Your task to perform on an android device: check the backup settings in the google photos Image 0: 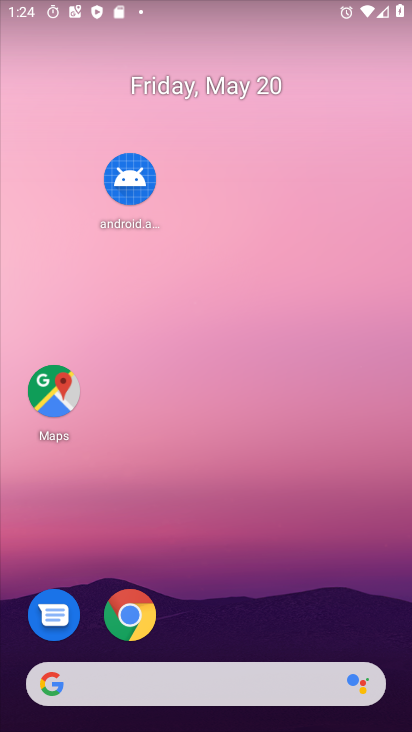
Step 0: drag from (327, 583) to (298, 113)
Your task to perform on an android device: check the backup settings in the google photos Image 1: 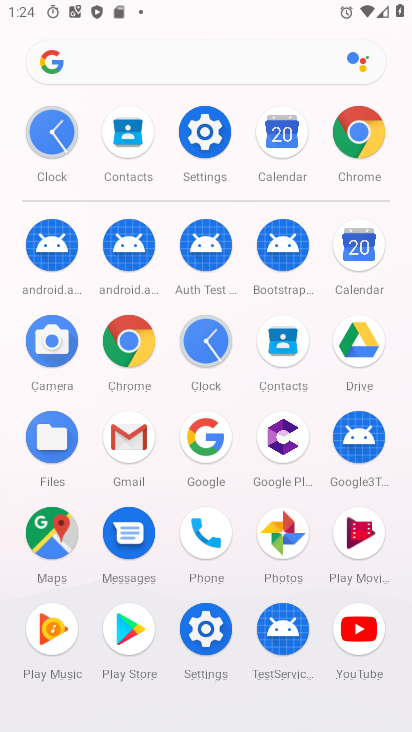
Step 1: click (276, 545)
Your task to perform on an android device: check the backup settings in the google photos Image 2: 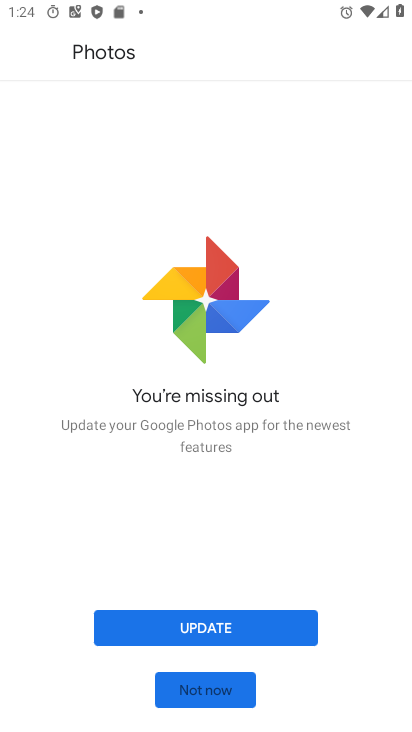
Step 2: click (208, 702)
Your task to perform on an android device: check the backup settings in the google photos Image 3: 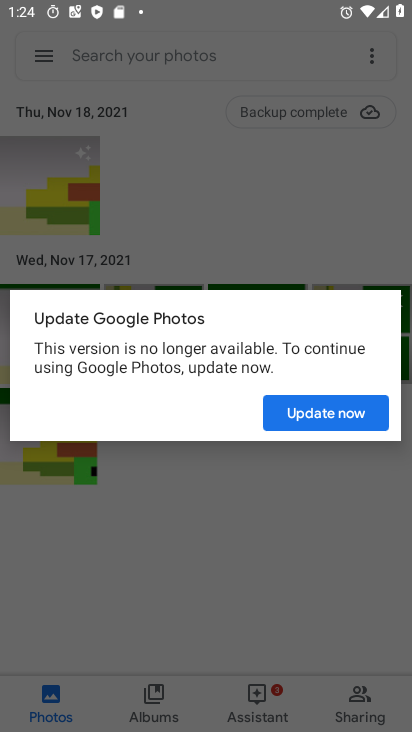
Step 3: click (288, 408)
Your task to perform on an android device: check the backup settings in the google photos Image 4: 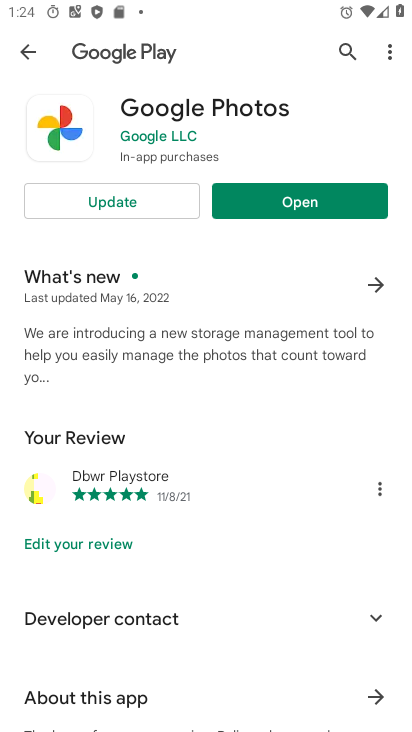
Step 4: click (320, 209)
Your task to perform on an android device: check the backup settings in the google photos Image 5: 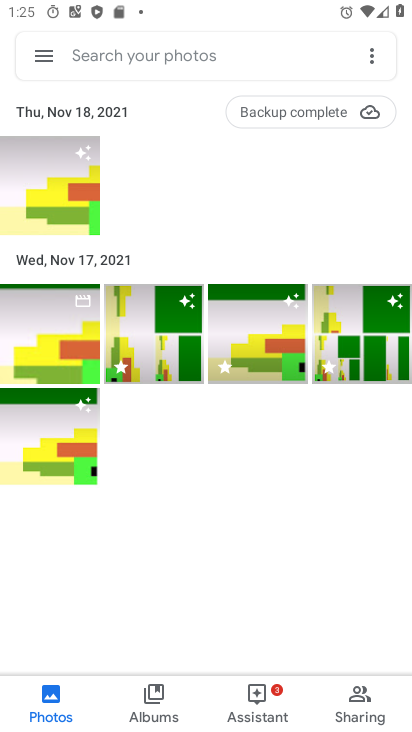
Step 5: click (55, 49)
Your task to perform on an android device: check the backup settings in the google photos Image 6: 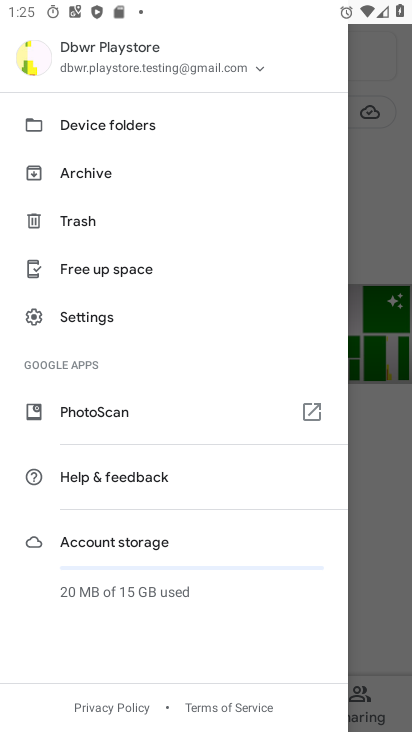
Step 6: click (55, 49)
Your task to perform on an android device: check the backup settings in the google photos Image 7: 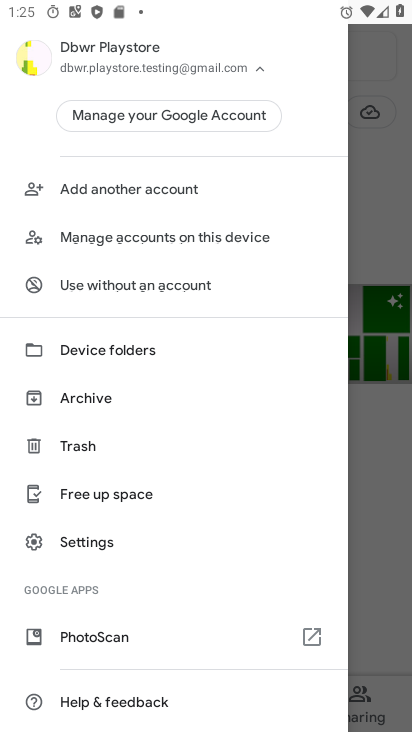
Step 7: click (85, 541)
Your task to perform on an android device: check the backup settings in the google photos Image 8: 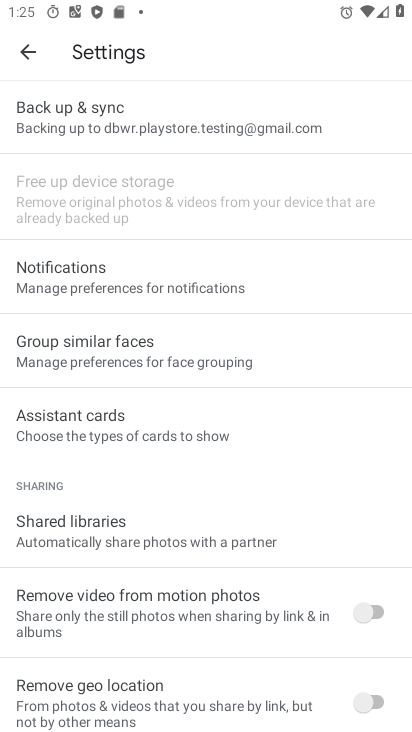
Step 8: click (175, 113)
Your task to perform on an android device: check the backup settings in the google photos Image 9: 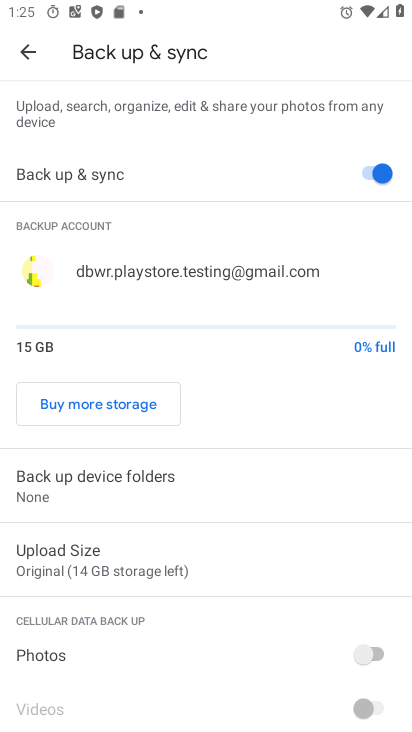
Step 9: task complete